Your task to perform on an android device: change the clock style Image 0: 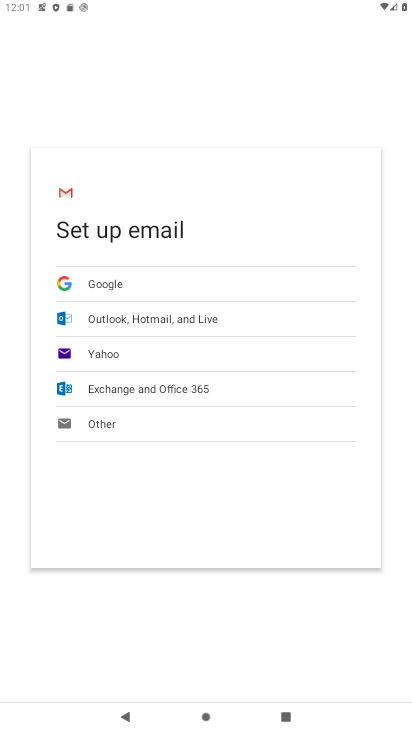
Step 0: press home button
Your task to perform on an android device: change the clock style Image 1: 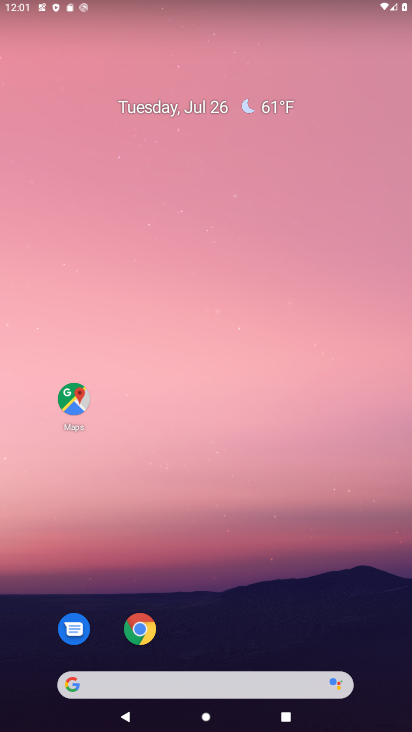
Step 1: drag from (214, 631) to (185, 185)
Your task to perform on an android device: change the clock style Image 2: 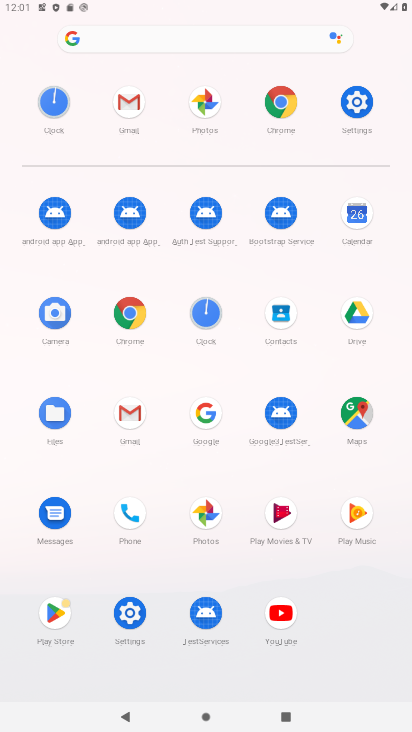
Step 2: click (215, 316)
Your task to perform on an android device: change the clock style Image 3: 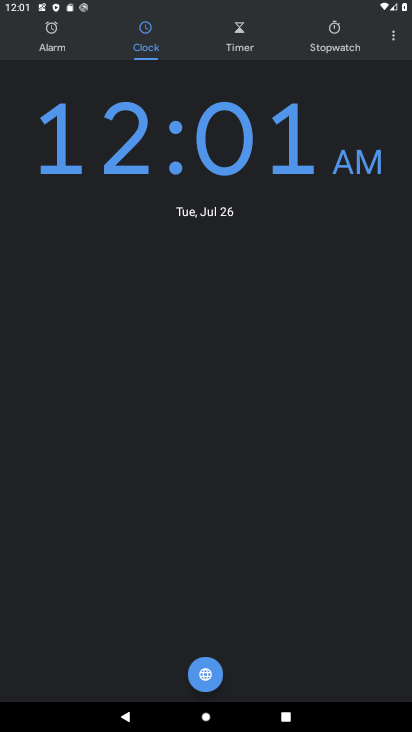
Step 3: click (398, 35)
Your task to perform on an android device: change the clock style Image 4: 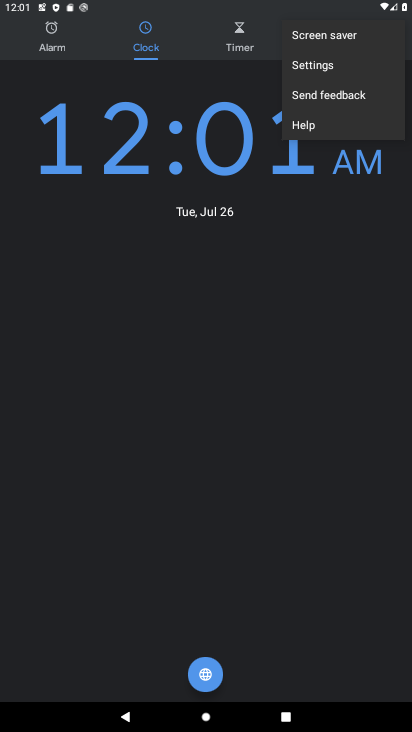
Step 4: click (321, 70)
Your task to perform on an android device: change the clock style Image 5: 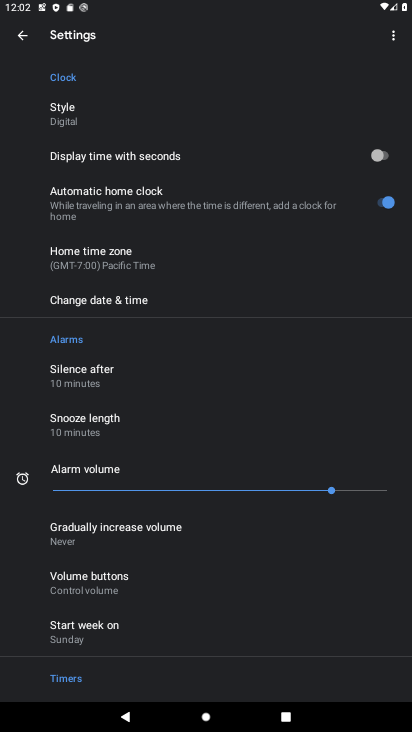
Step 5: click (105, 112)
Your task to perform on an android device: change the clock style Image 6: 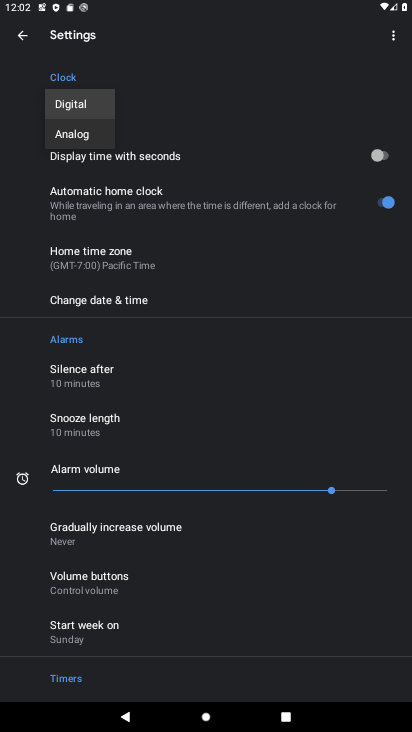
Step 6: click (100, 136)
Your task to perform on an android device: change the clock style Image 7: 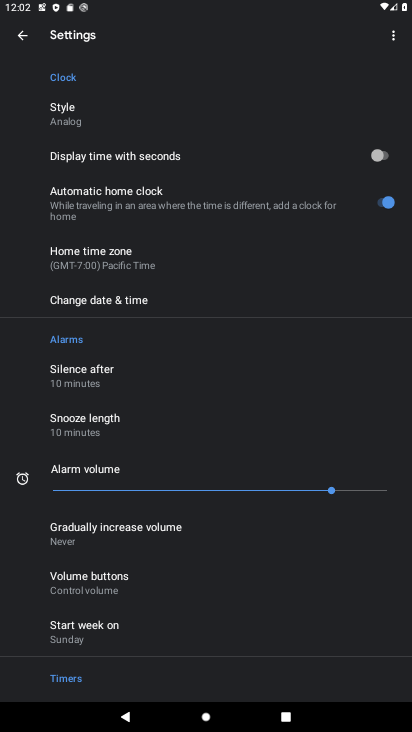
Step 7: task complete